Your task to perform on an android device: Turn on the flashlight Image 0: 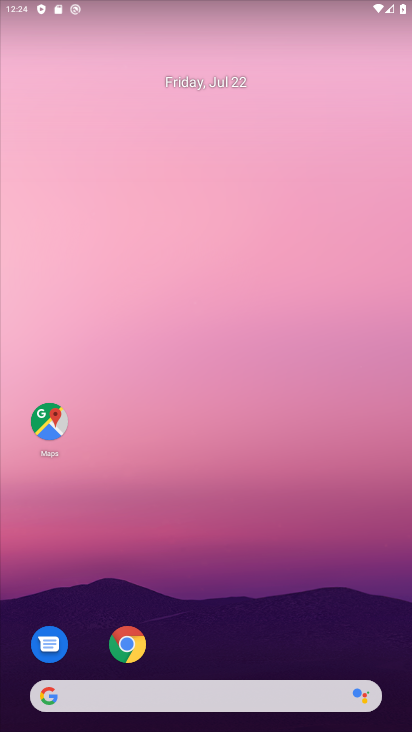
Step 0: drag from (195, 660) to (221, 100)
Your task to perform on an android device: Turn on the flashlight Image 1: 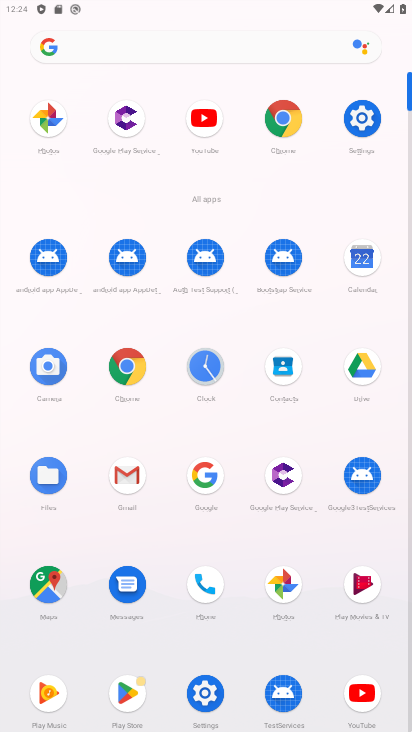
Step 1: click (362, 120)
Your task to perform on an android device: Turn on the flashlight Image 2: 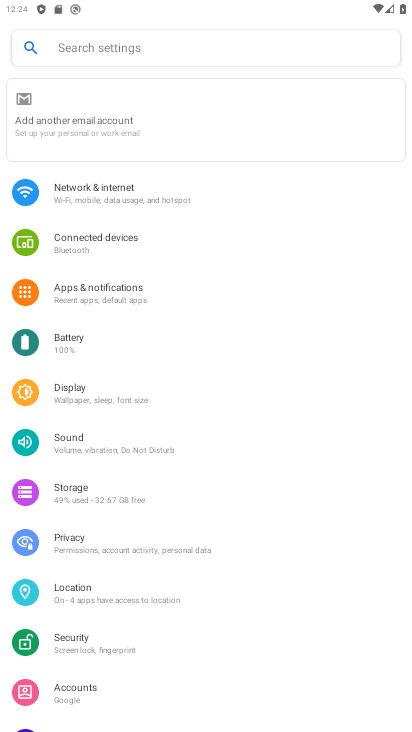
Step 2: task complete